Your task to perform on an android device: open chrome and create a bookmark for the current page Image 0: 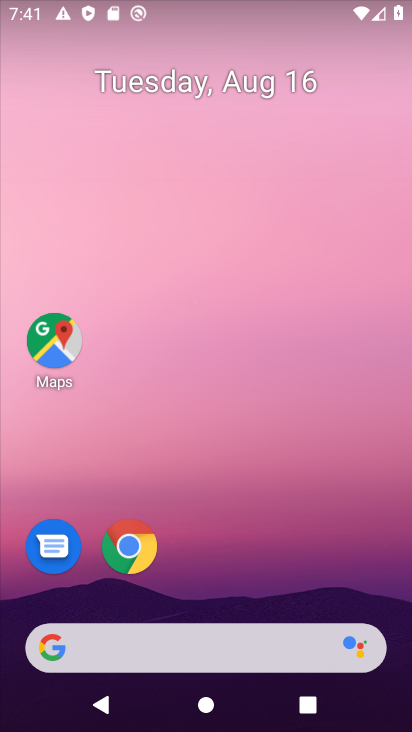
Step 0: click (127, 541)
Your task to perform on an android device: open chrome and create a bookmark for the current page Image 1: 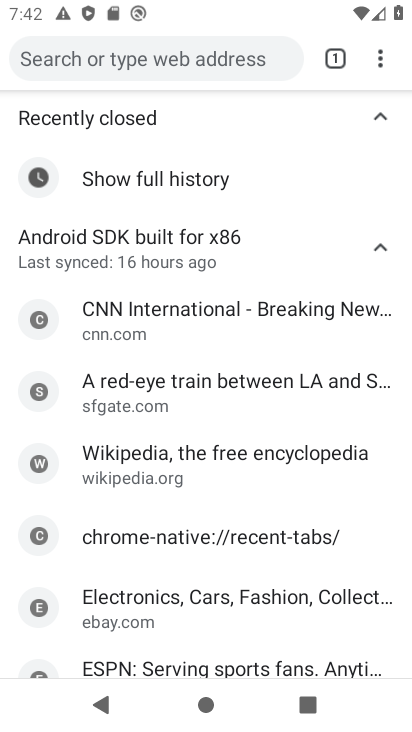
Step 1: click (376, 61)
Your task to perform on an android device: open chrome and create a bookmark for the current page Image 2: 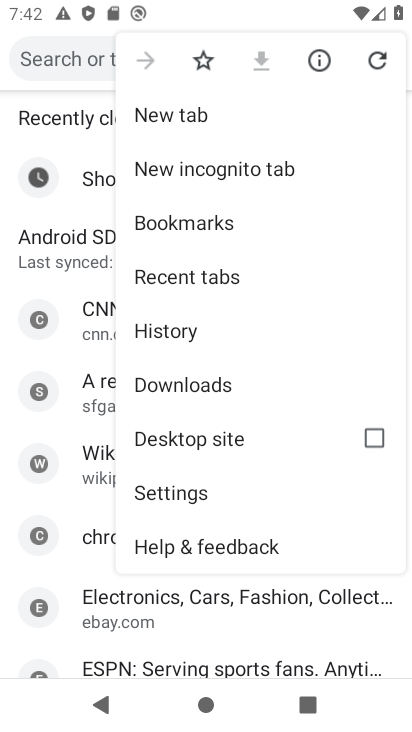
Step 2: click (204, 55)
Your task to perform on an android device: open chrome and create a bookmark for the current page Image 3: 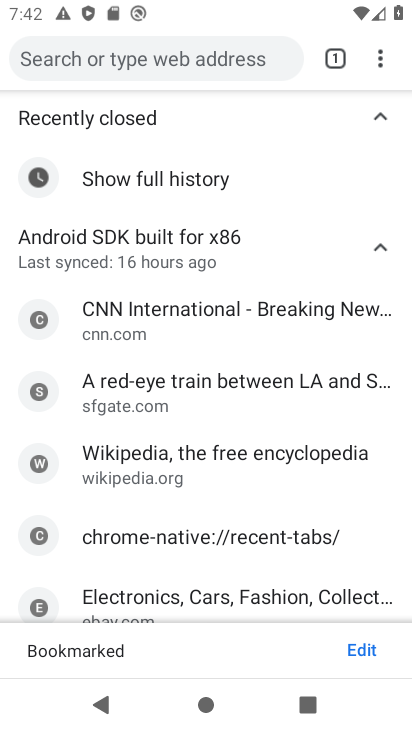
Step 3: click (382, 55)
Your task to perform on an android device: open chrome and create a bookmark for the current page Image 4: 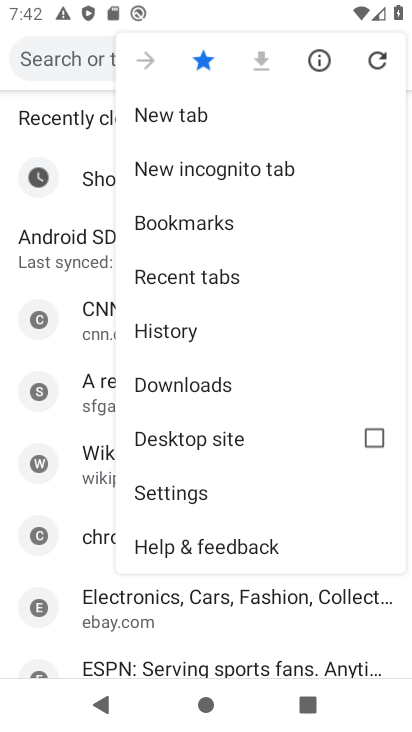
Step 4: click (350, 53)
Your task to perform on an android device: open chrome and create a bookmark for the current page Image 5: 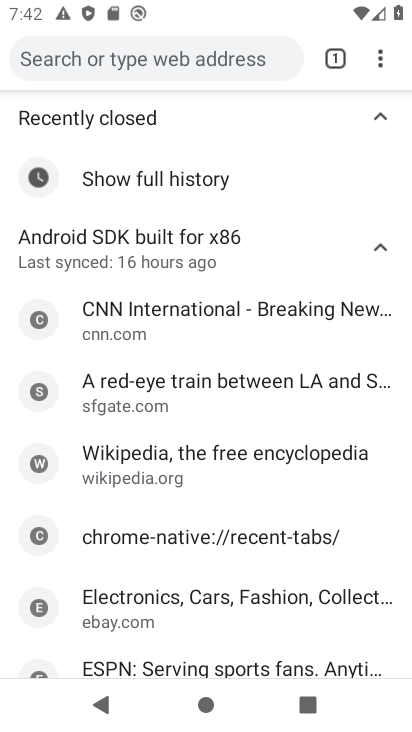
Step 5: task complete